Your task to perform on an android device: Toggle the flashlight Image 0: 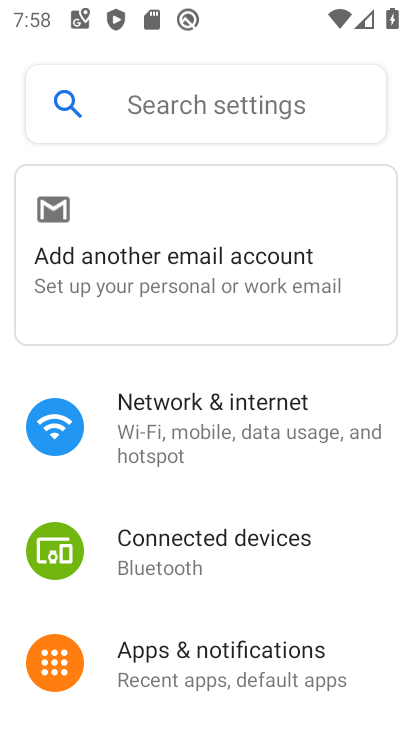
Step 0: drag from (257, 585) to (285, 81)
Your task to perform on an android device: Toggle the flashlight Image 1: 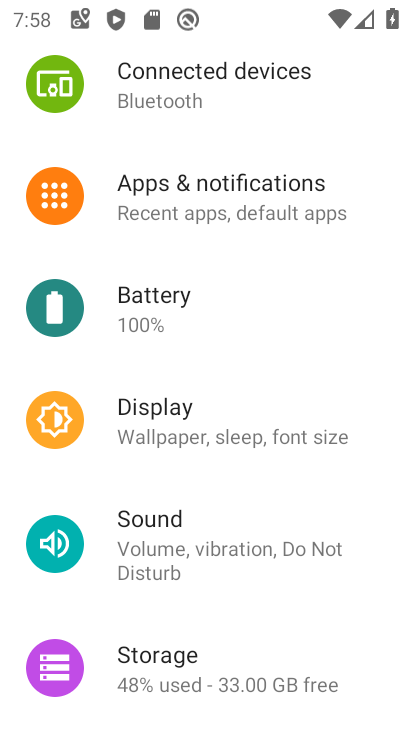
Step 1: click (170, 434)
Your task to perform on an android device: Toggle the flashlight Image 2: 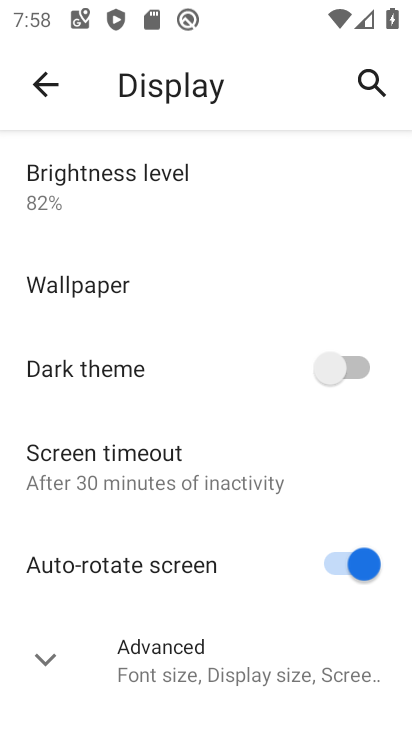
Step 2: task complete